Your task to perform on an android device: Open Google Chrome and click the shortcut for Amazon.com Image 0: 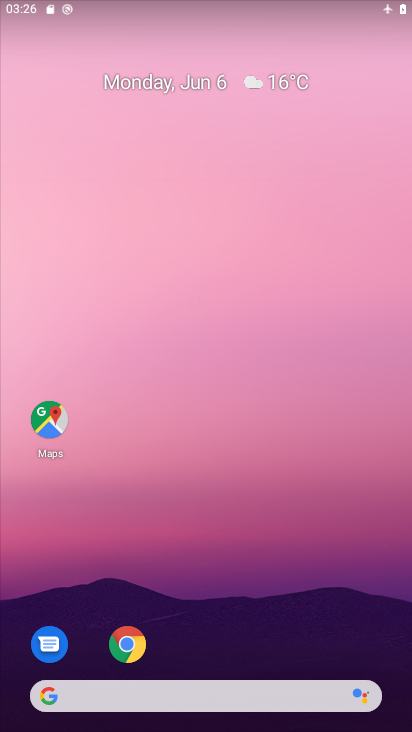
Step 0: click (133, 643)
Your task to perform on an android device: Open Google Chrome and click the shortcut for Amazon.com Image 1: 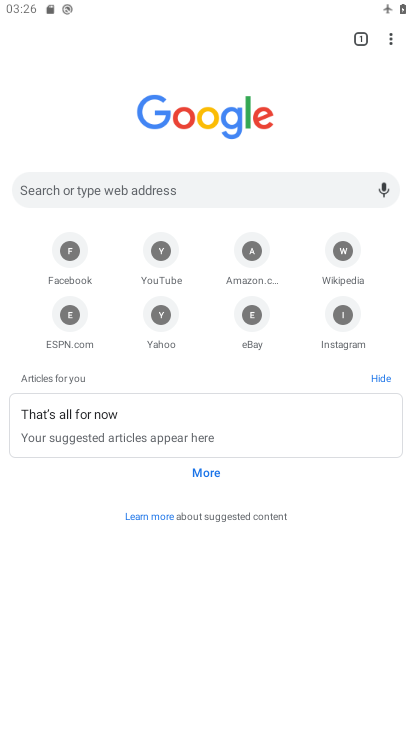
Step 1: click (256, 271)
Your task to perform on an android device: Open Google Chrome and click the shortcut for Amazon.com Image 2: 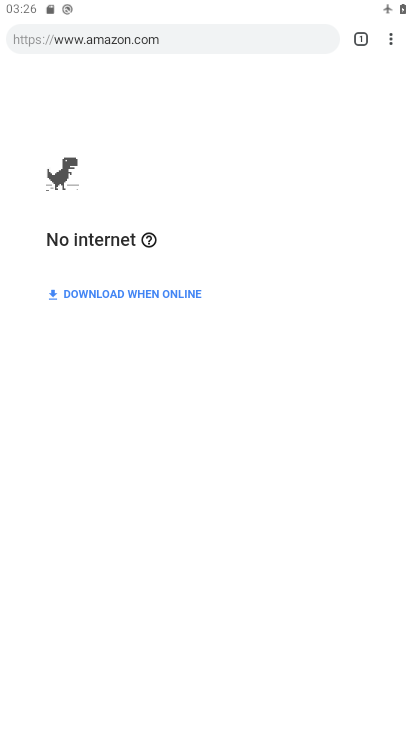
Step 2: task complete